Your task to perform on an android device: turn vacation reply on in the gmail app Image 0: 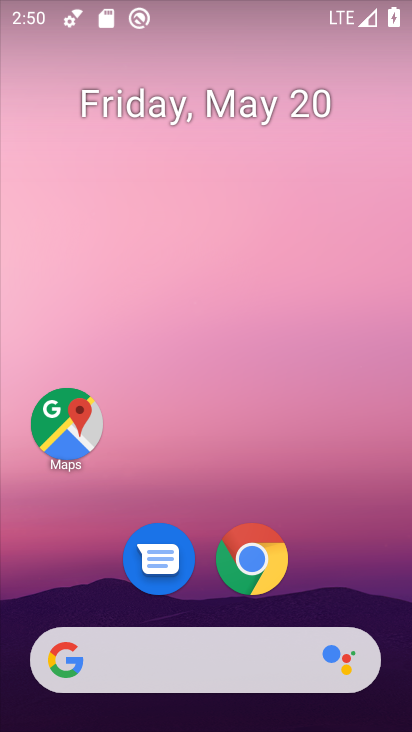
Step 0: drag from (227, 509) to (225, 144)
Your task to perform on an android device: turn vacation reply on in the gmail app Image 1: 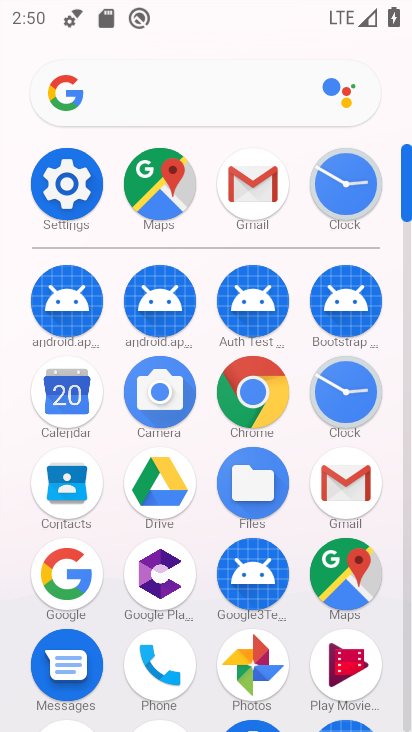
Step 1: click (256, 180)
Your task to perform on an android device: turn vacation reply on in the gmail app Image 2: 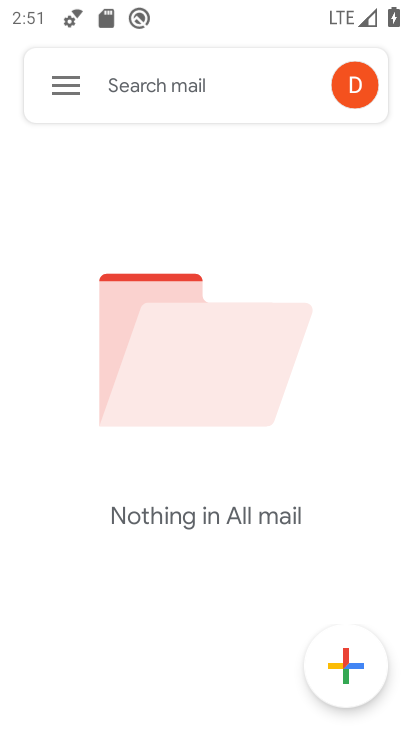
Step 2: click (70, 93)
Your task to perform on an android device: turn vacation reply on in the gmail app Image 3: 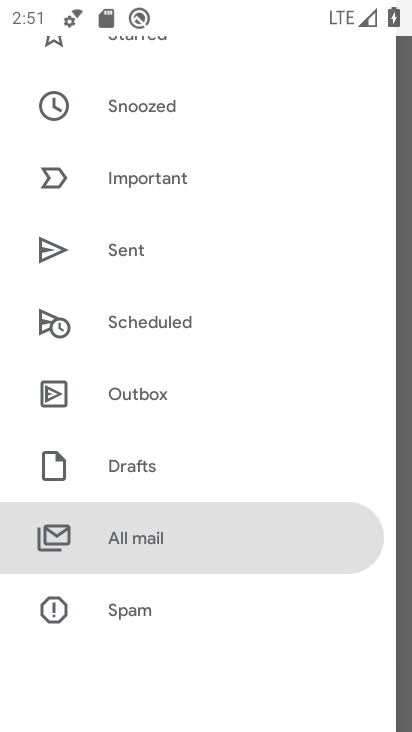
Step 3: drag from (243, 464) to (234, 62)
Your task to perform on an android device: turn vacation reply on in the gmail app Image 4: 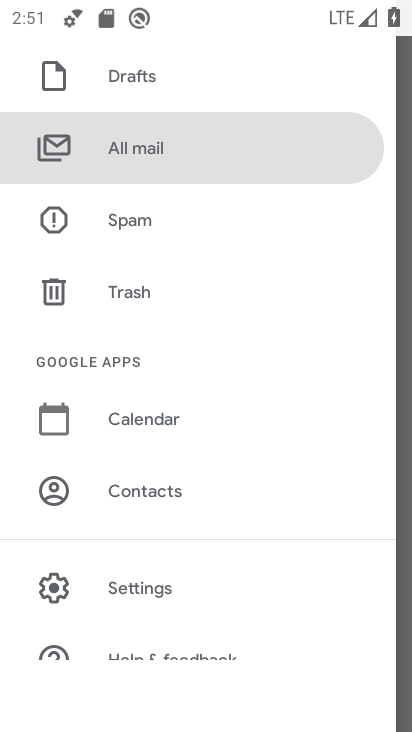
Step 4: click (149, 585)
Your task to perform on an android device: turn vacation reply on in the gmail app Image 5: 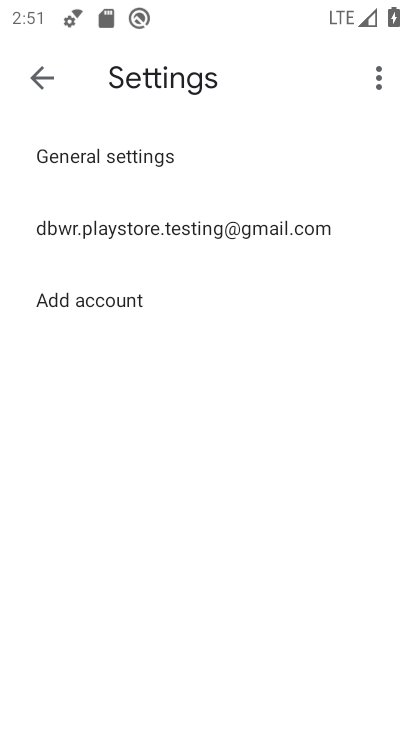
Step 5: click (244, 224)
Your task to perform on an android device: turn vacation reply on in the gmail app Image 6: 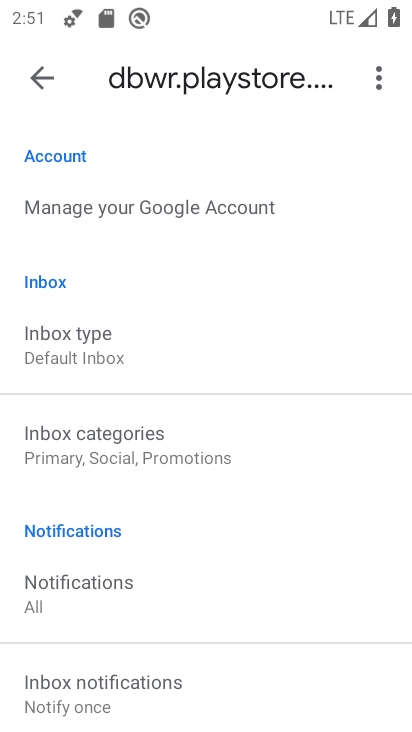
Step 6: drag from (242, 573) to (236, 226)
Your task to perform on an android device: turn vacation reply on in the gmail app Image 7: 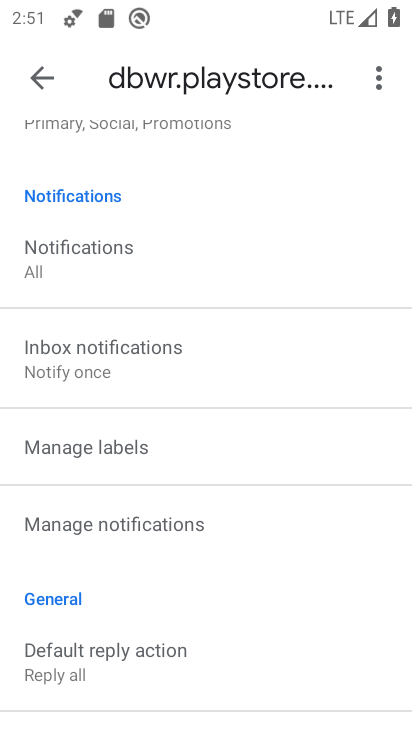
Step 7: drag from (167, 565) to (165, 171)
Your task to perform on an android device: turn vacation reply on in the gmail app Image 8: 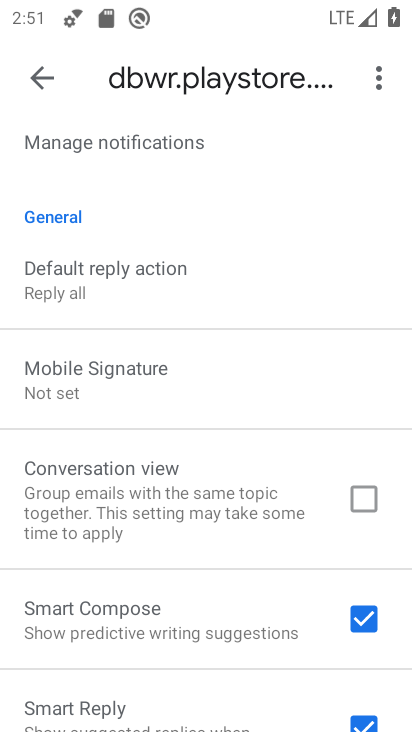
Step 8: drag from (233, 672) to (281, 212)
Your task to perform on an android device: turn vacation reply on in the gmail app Image 9: 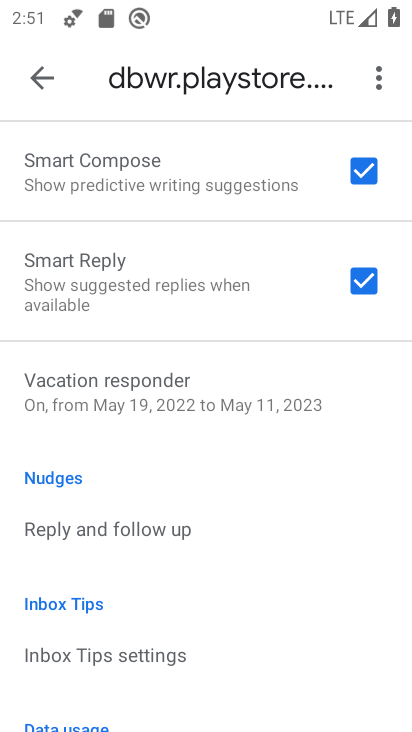
Step 9: click (212, 382)
Your task to perform on an android device: turn vacation reply on in the gmail app Image 10: 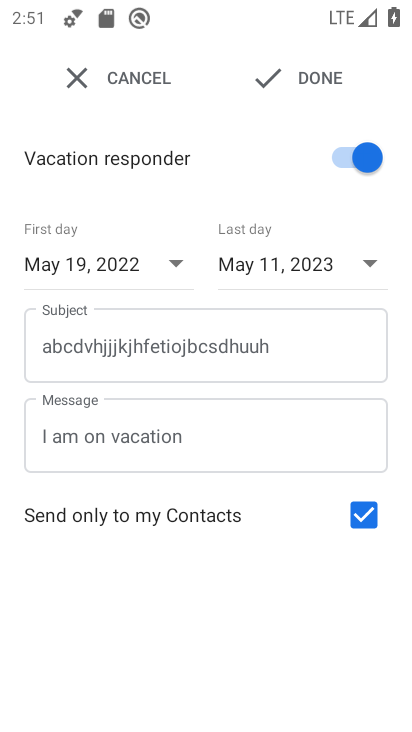
Step 10: task complete